Your task to perform on an android device: What's the news this month? Image 0: 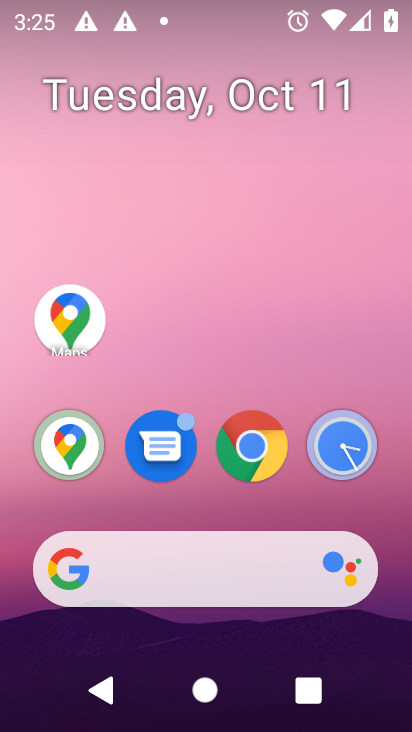
Step 0: click (252, 450)
Your task to perform on an android device: What's the news this month? Image 1: 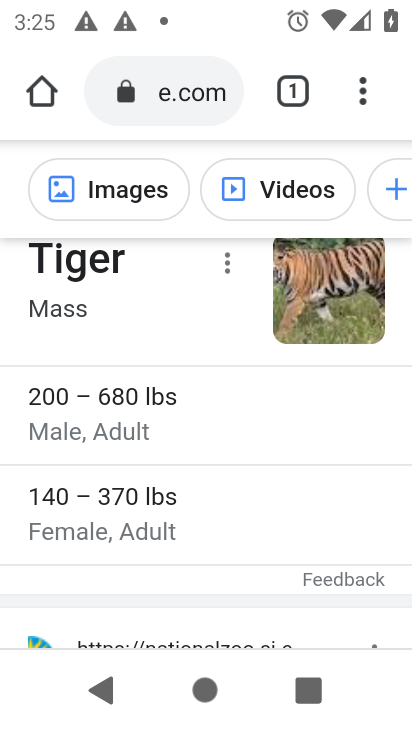
Step 1: click (173, 94)
Your task to perform on an android device: What's the news this month? Image 2: 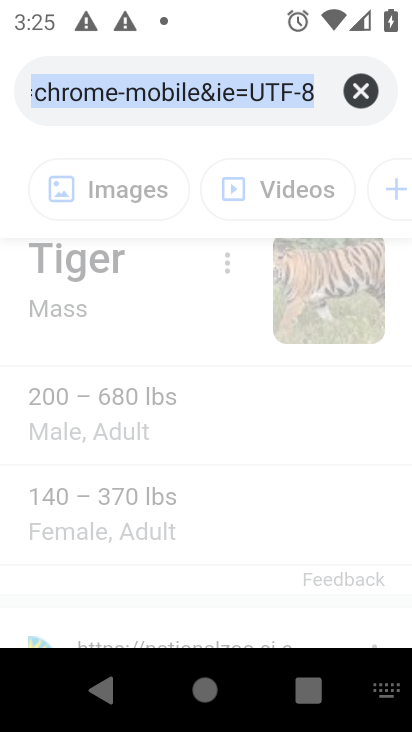
Step 2: click (352, 96)
Your task to perform on an android device: What's the news this month? Image 3: 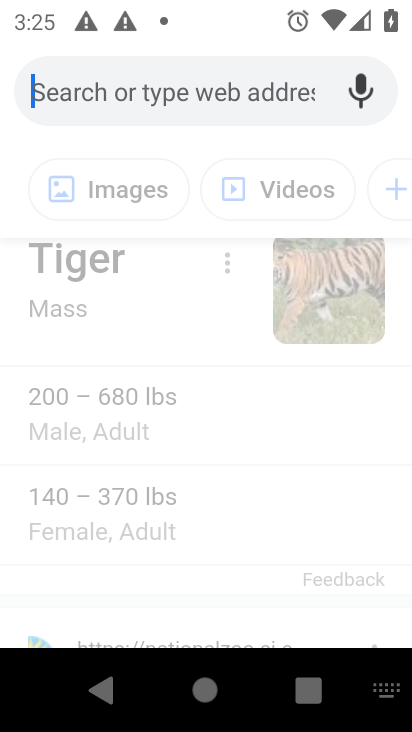
Step 3: type "news this month"
Your task to perform on an android device: What's the news this month? Image 4: 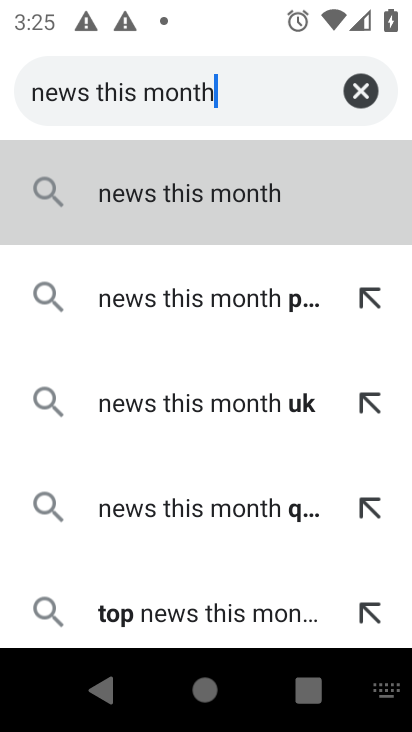
Step 4: click (191, 201)
Your task to perform on an android device: What's the news this month? Image 5: 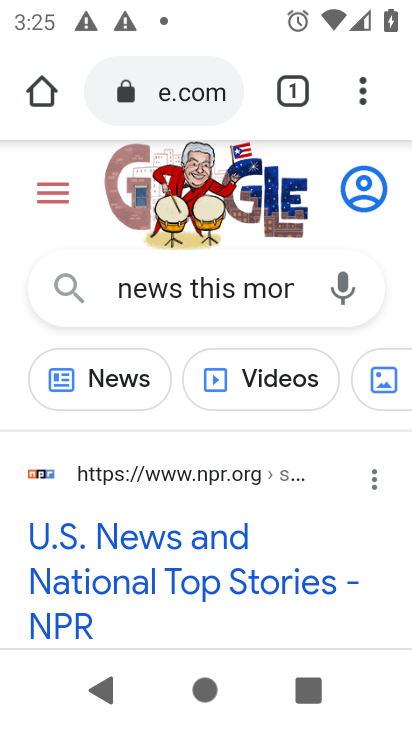
Step 5: drag from (158, 565) to (165, 276)
Your task to perform on an android device: What's the news this month? Image 6: 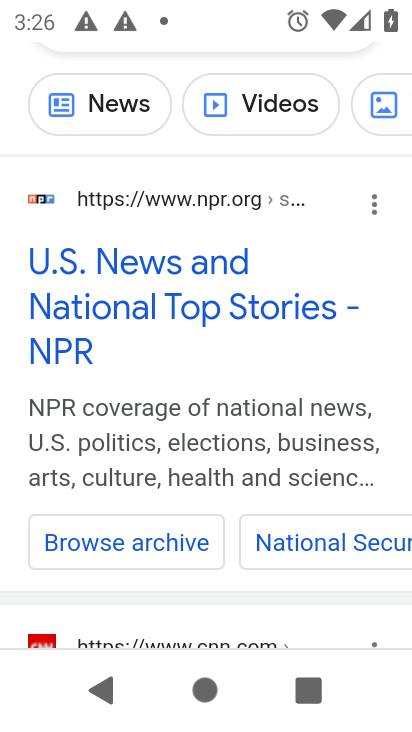
Step 6: click (150, 334)
Your task to perform on an android device: What's the news this month? Image 7: 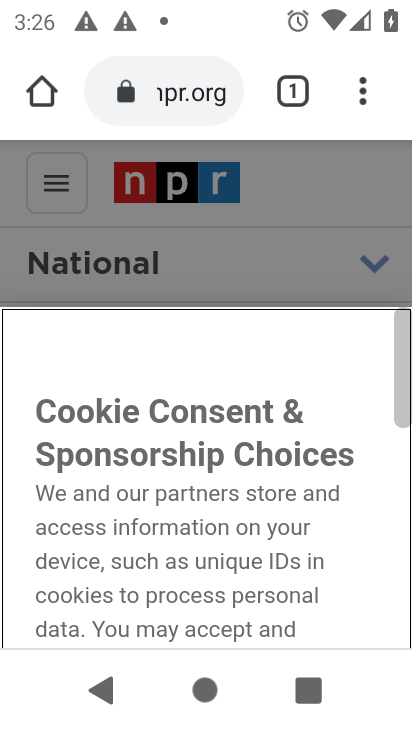
Step 7: task complete